Your task to perform on an android device: choose inbox layout in the gmail app Image 0: 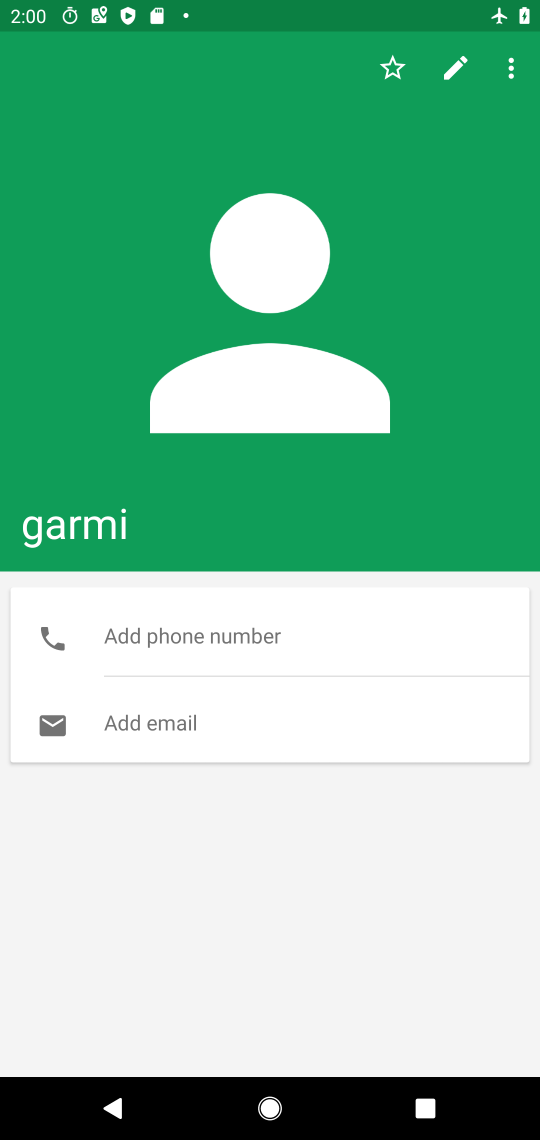
Step 0: press home button
Your task to perform on an android device: choose inbox layout in the gmail app Image 1: 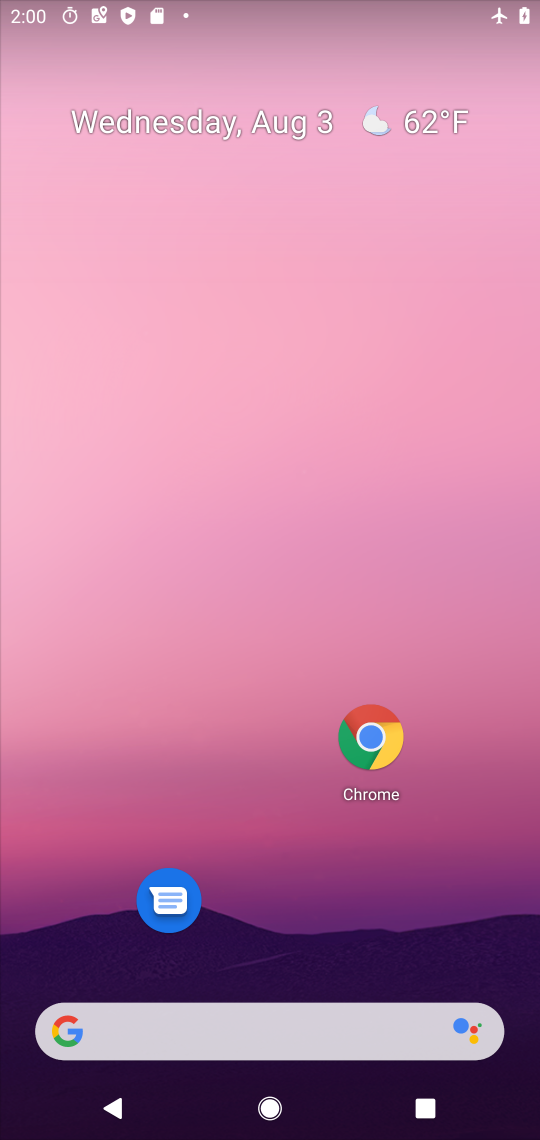
Step 1: drag from (300, 947) to (265, 78)
Your task to perform on an android device: choose inbox layout in the gmail app Image 2: 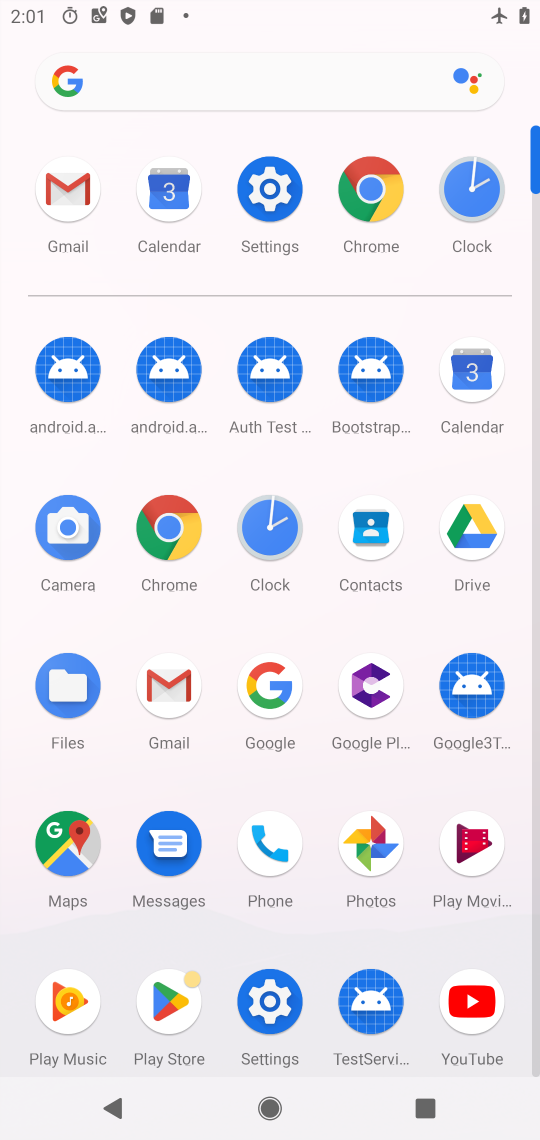
Step 2: click (171, 698)
Your task to perform on an android device: choose inbox layout in the gmail app Image 3: 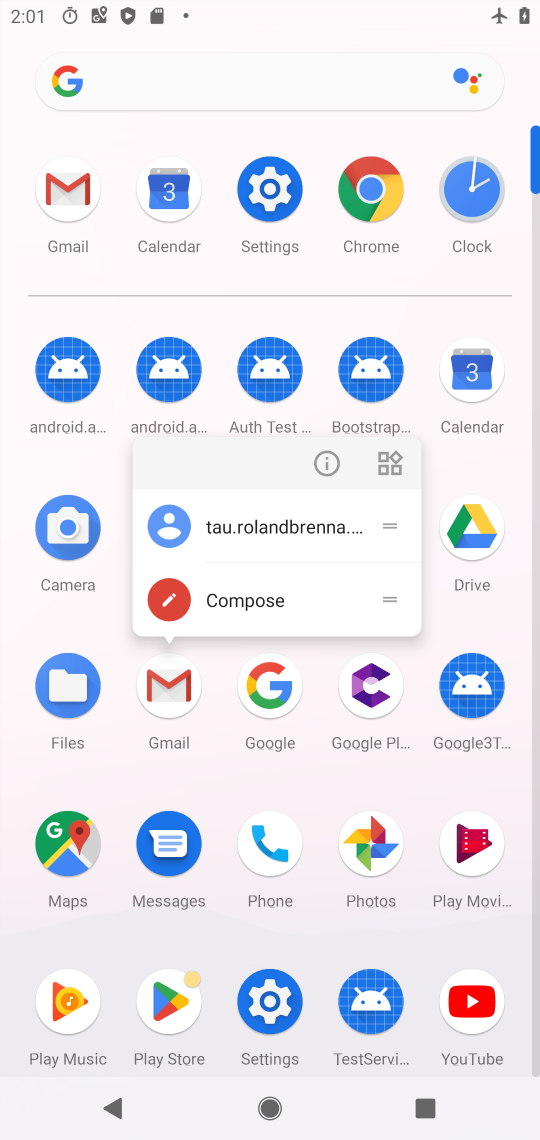
Step 3: click (149, 699)
Your task to perform on an android device: choose inbox layout in the gmail app Image 4: 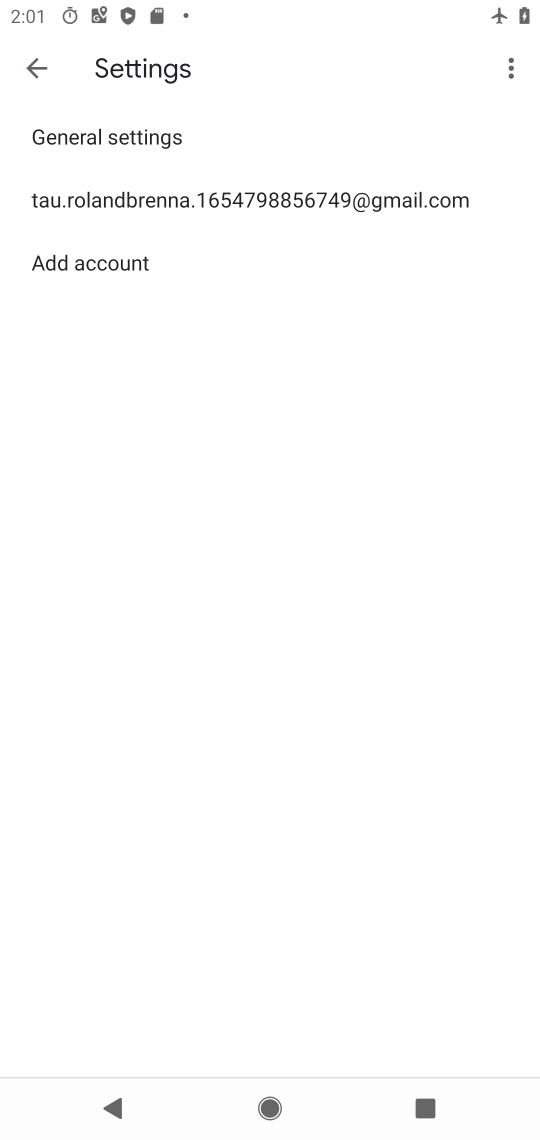
Step 4: click (102, 204)
Your task to perform on an android device: choose inbox layout in the gmail app Image 5: 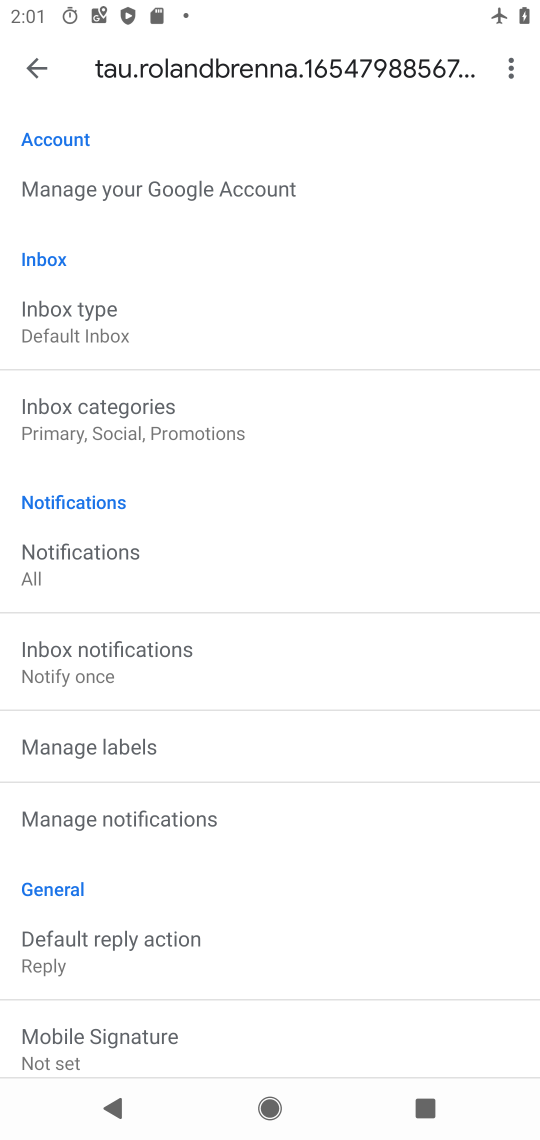
Step 5: click (115, 319)
Your task to perform on an android device: choose inbox layout in the gmail app Image 6: 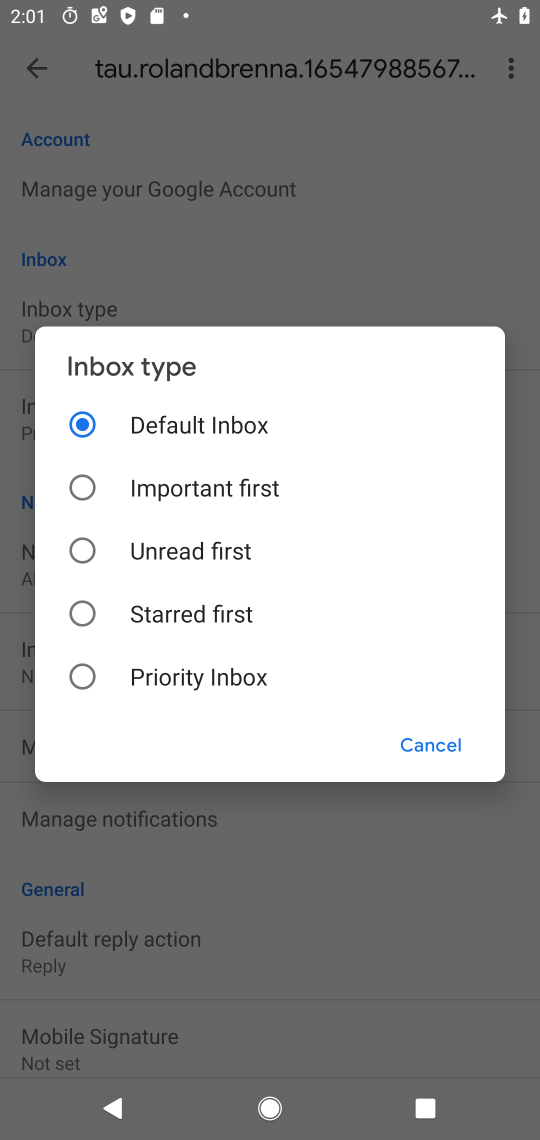
Step 6: task complete